Your task to perform on an android device: Go to display settings Image 0: 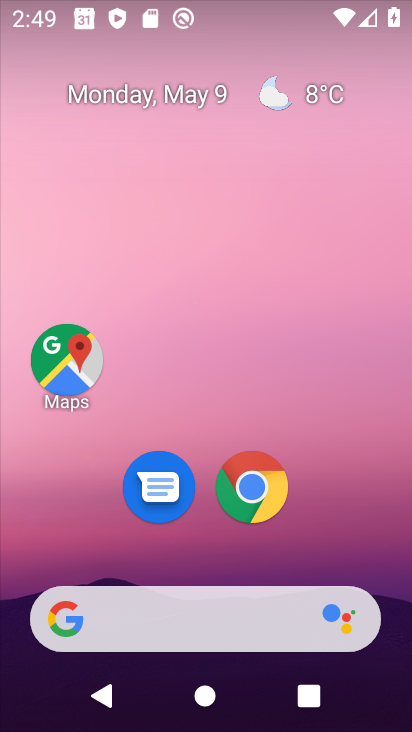
Step 0: drag from (208, 551) to (192, 50)
Your task to perform on an android device: Go to display settings Image 1: 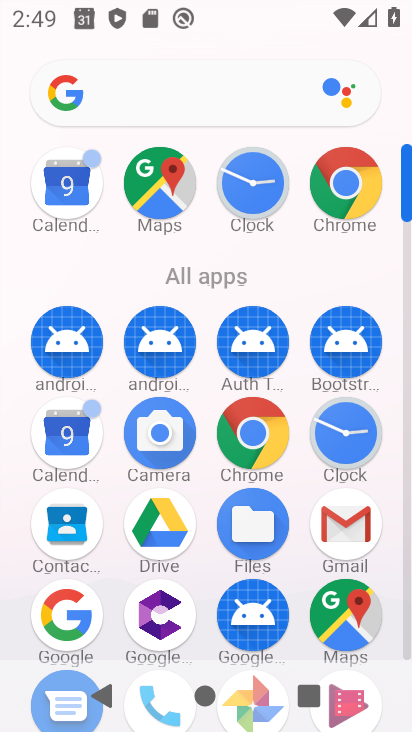
Step 1: drag from (203, 571) to (188, 207)
Your task to perform on an android device: Go to display settings Image 2: 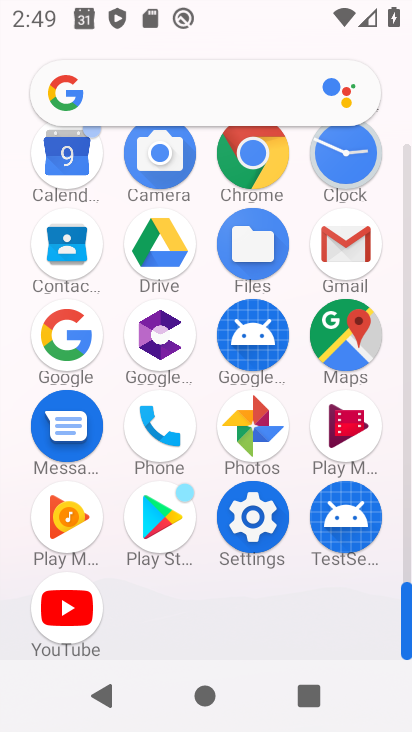
Step 2: click (248, 512)
Your task to perform on an android device: Go to display settings Image 3: 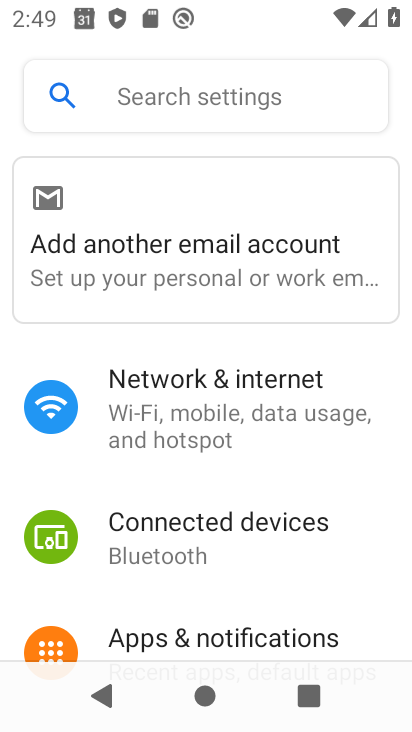
Step 3: drag from (197, 601) to (195, 162)
Your task to perform on an android device: Go to display settings Image 4: 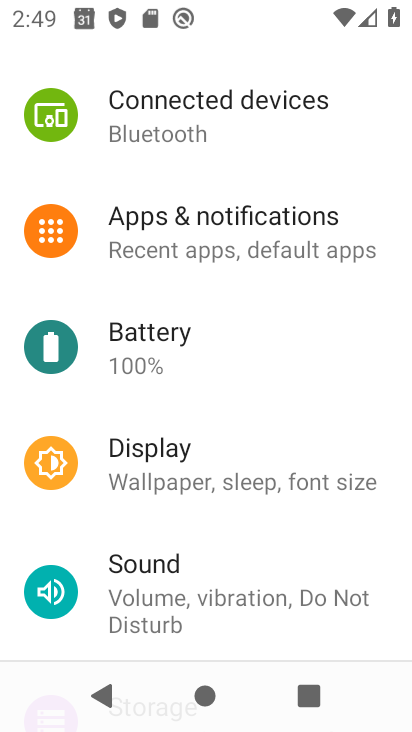
Step 4: click (204, 446)
Your task to perform on an android device: Go to display settings Image 5: 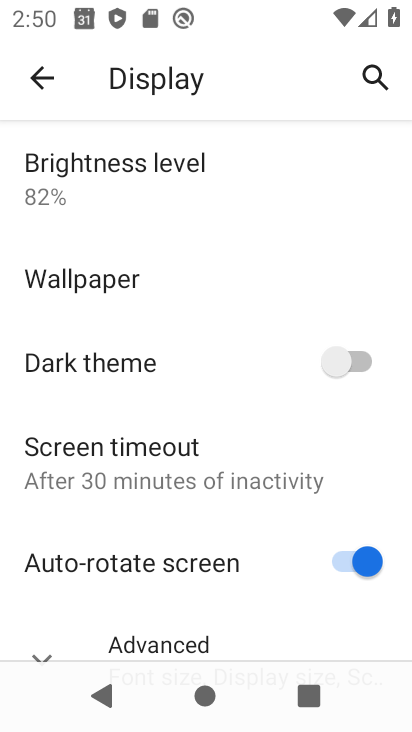
Step 5: drag from (158, 609) to (138, 372)
Your task to perform on an android device: Go to display settings Image 6: 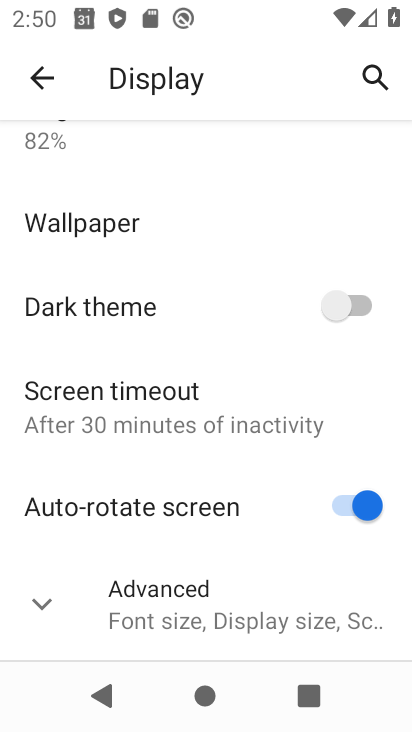
Step 6: click (43, 599)
Your task to perform on an android device: Go to display settings Image 7: 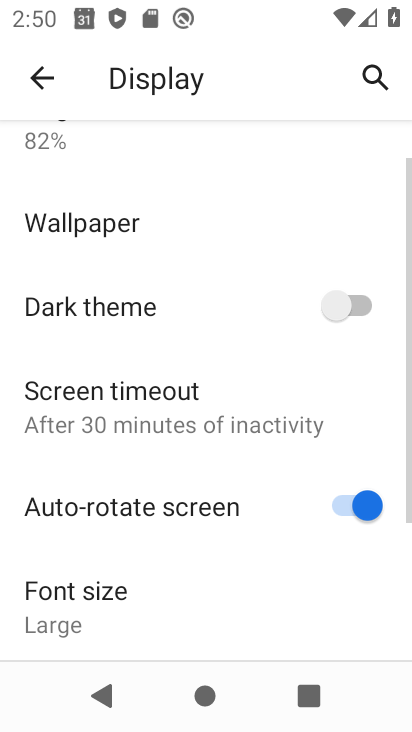
Step 7: task complete